Your task to perform on an android device: Add "energizer triple a" to the cart on costco.com, then select checkout. Image 0: 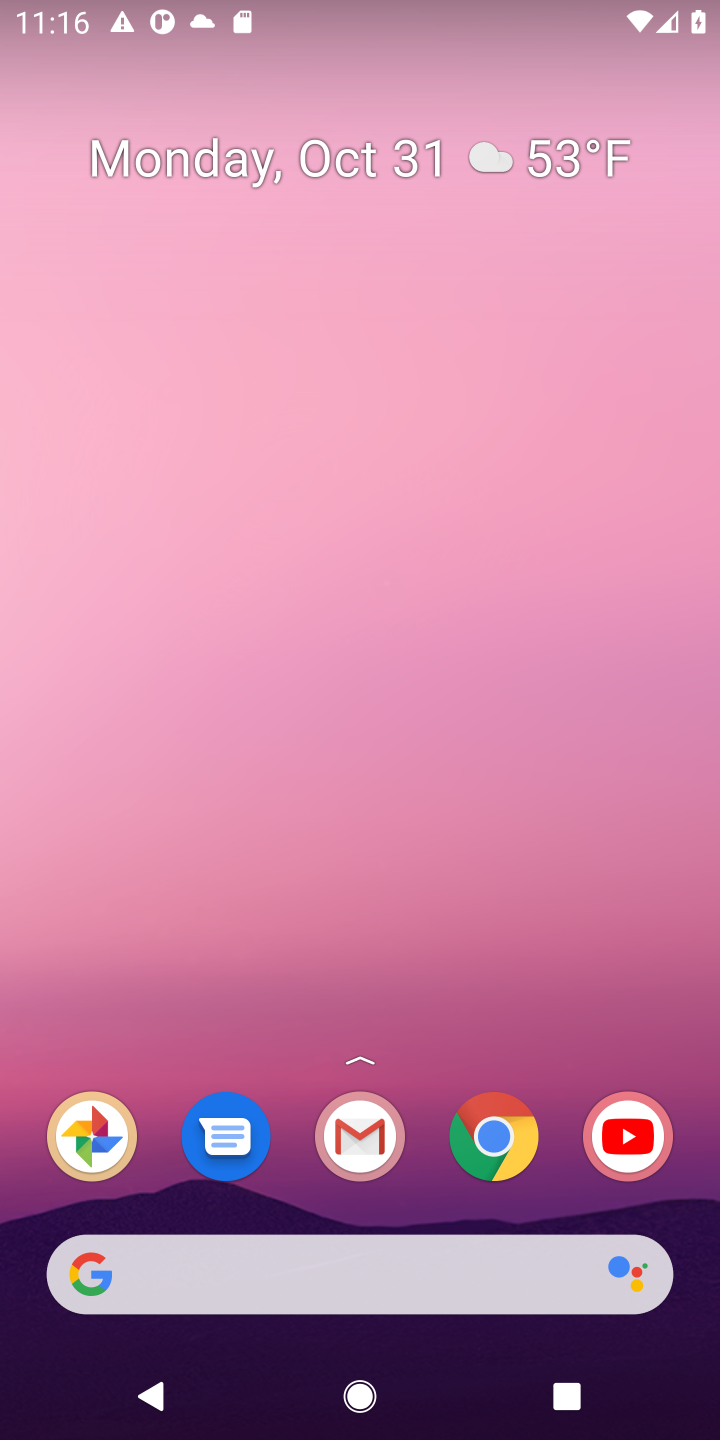
Step 0: press home button
Your task to perform on an android device: Add "energizer triple a" to the cart on costco.com, then select checkout. Image 1: 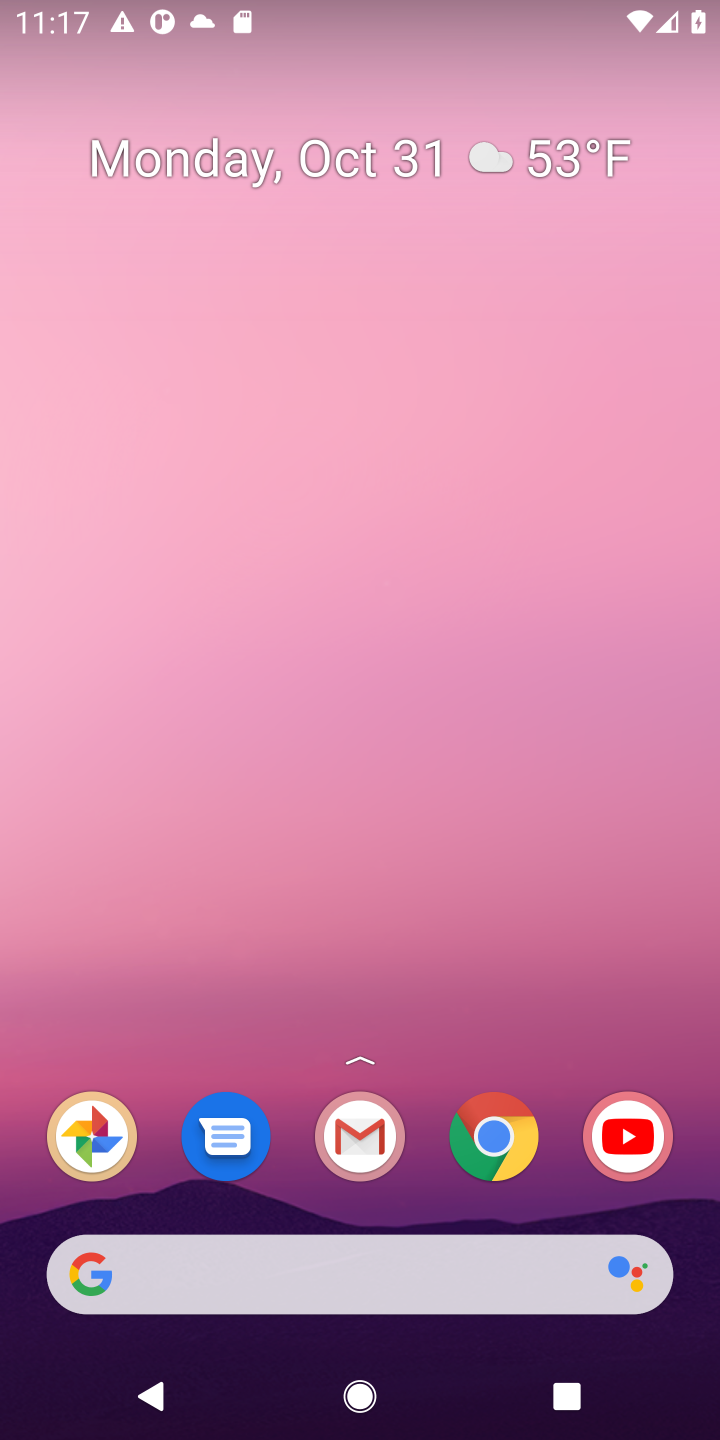
Step 1: click (133, 1281)
Your task to perform on an android device: Add "energizer triple a" to the cart on costco.com, then select checkout. Image 2: 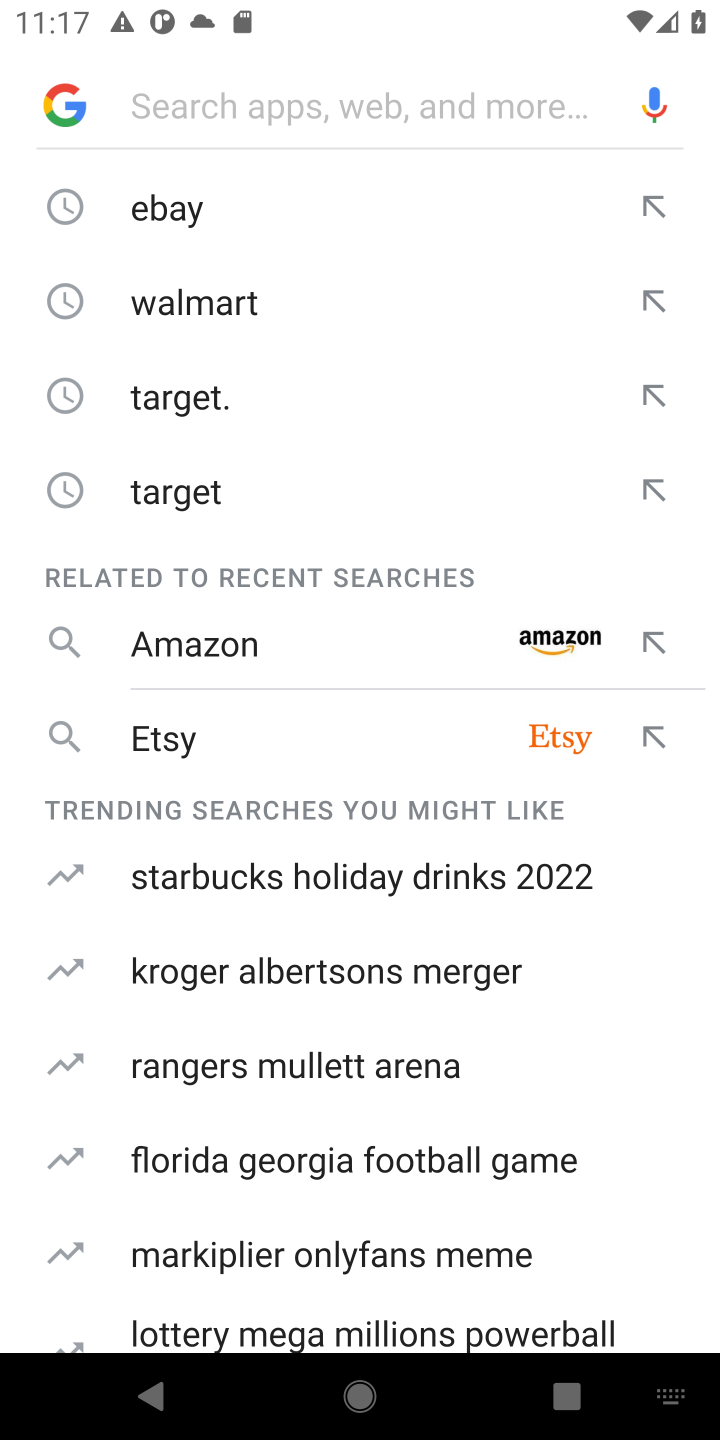
Step 2: type "costco.com"
Your task to perform on an android device: Add "energizer triple a" to the cart on costco.com, then select checkout. Image 3: 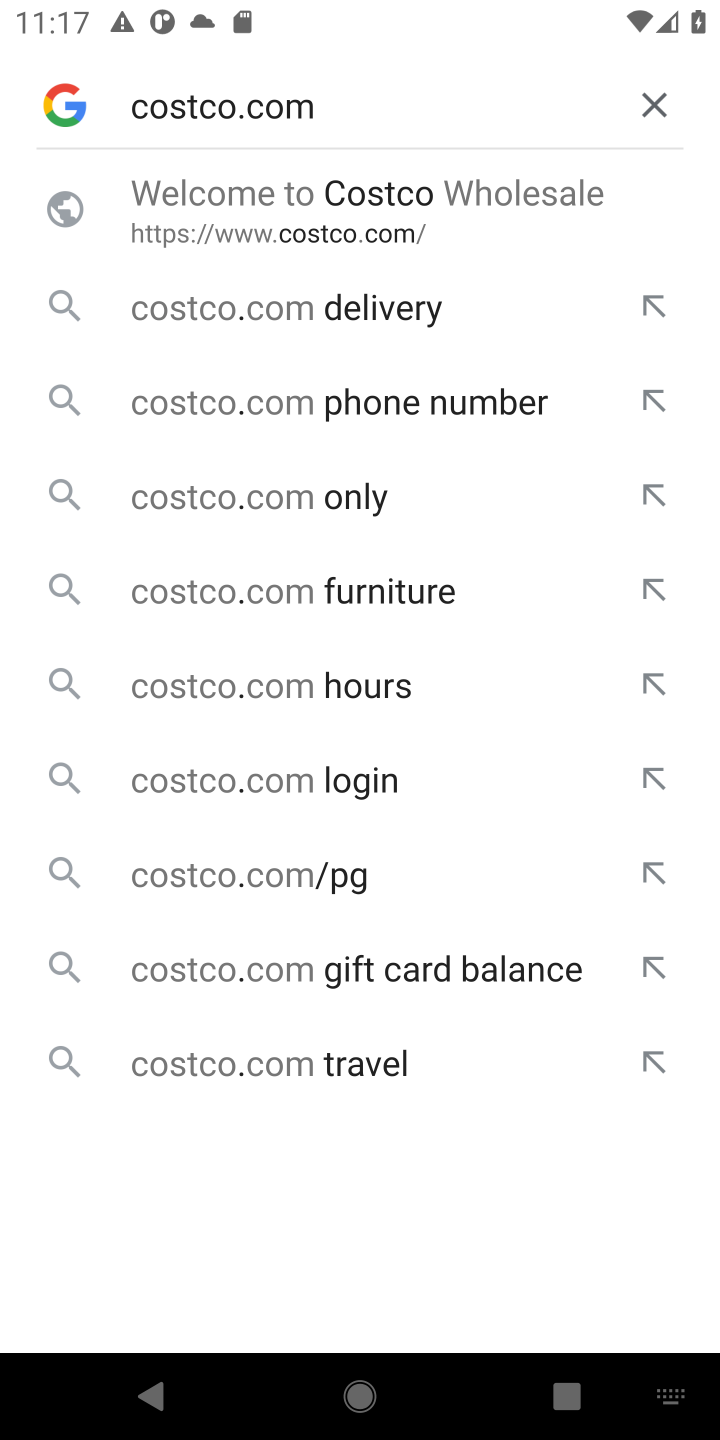
Step 3: press enter
Your task to perform on an android device: Add "energizer triple a" to the cart on costco.com, then select checkout. Image 4: 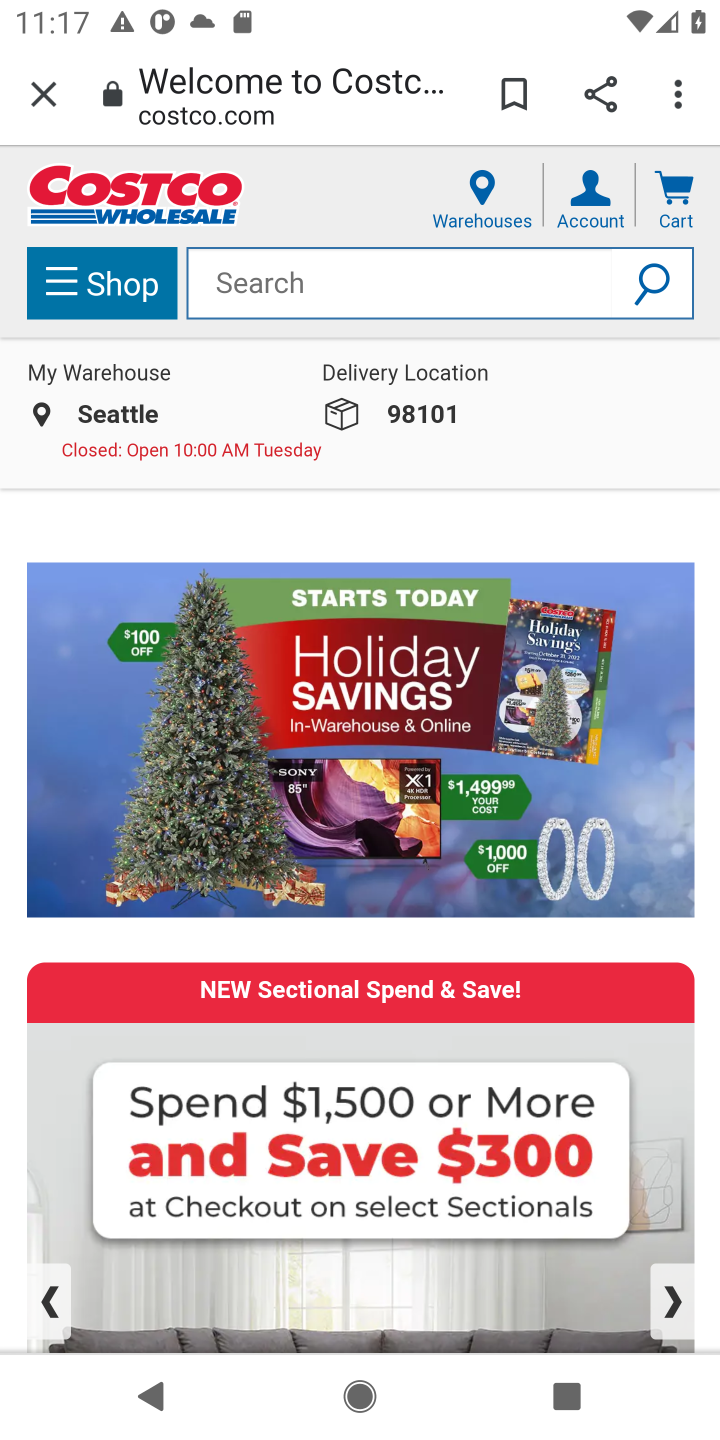
Step 4: click (268, 277)
Your task to perform on an android device: Add "energizer triple a" to the cart on costco.com, then select checkout. Image 5: 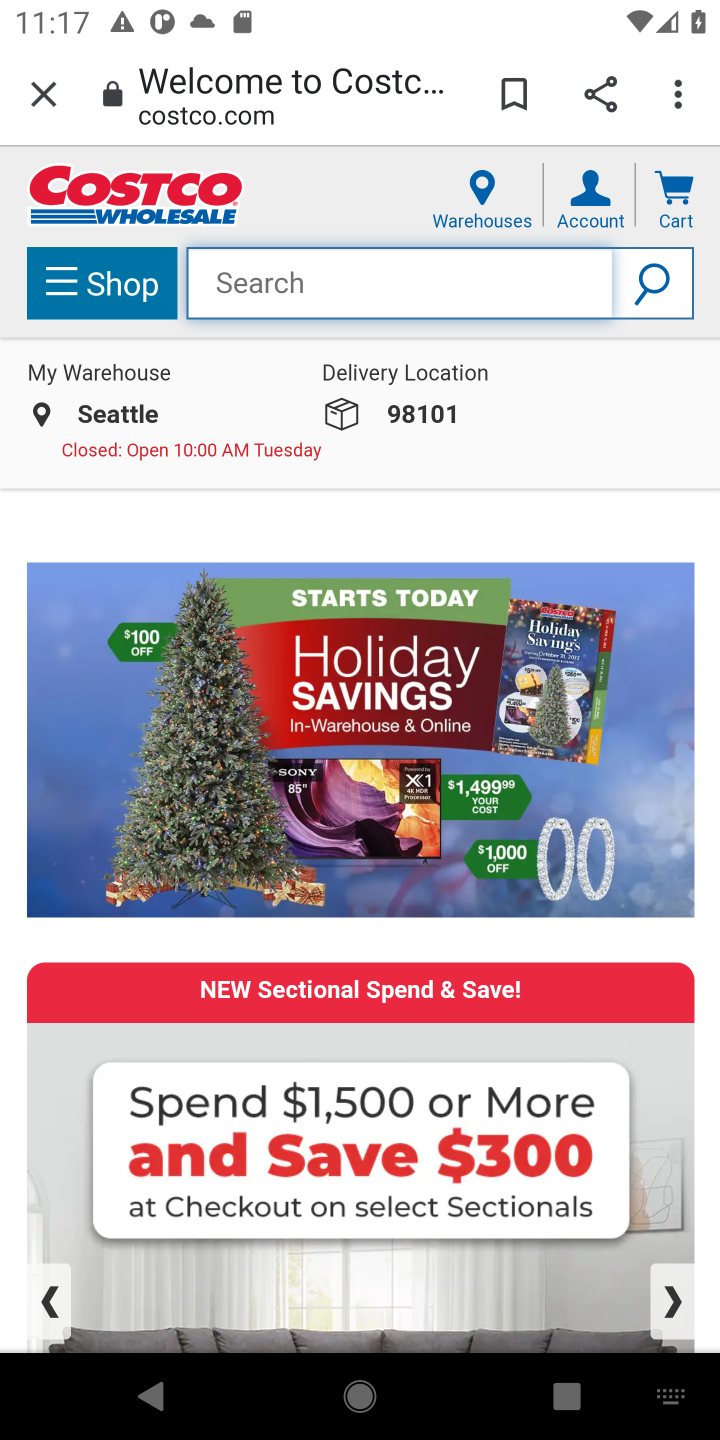
Step 5: press enter
Your task to perform on an android device: Add "energizer triple a" to the cart on costco.com, then select checkout. Image 6: 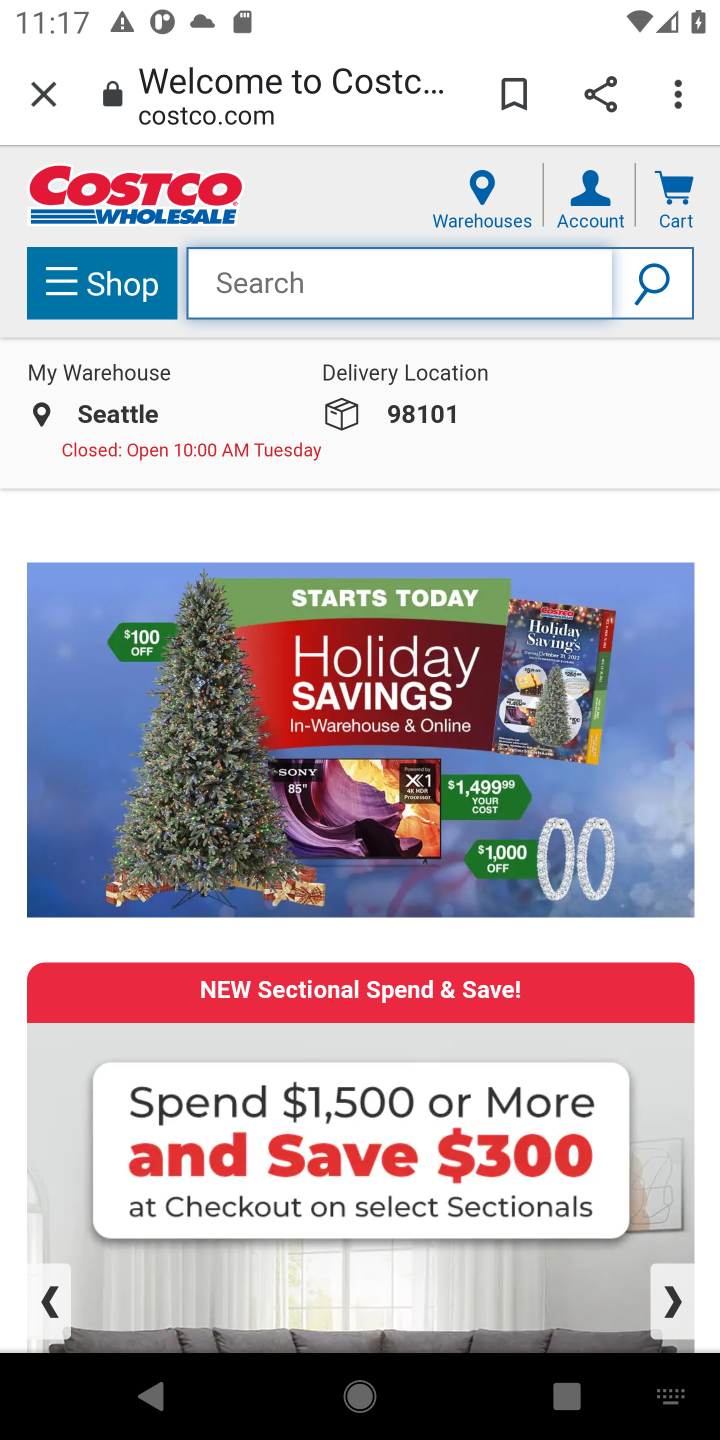
Step 6: type "energizer triple a"
Your task to perform on an android device: Add "energizer triple a" to the cart on costco.com, then select checkout. Image 7: 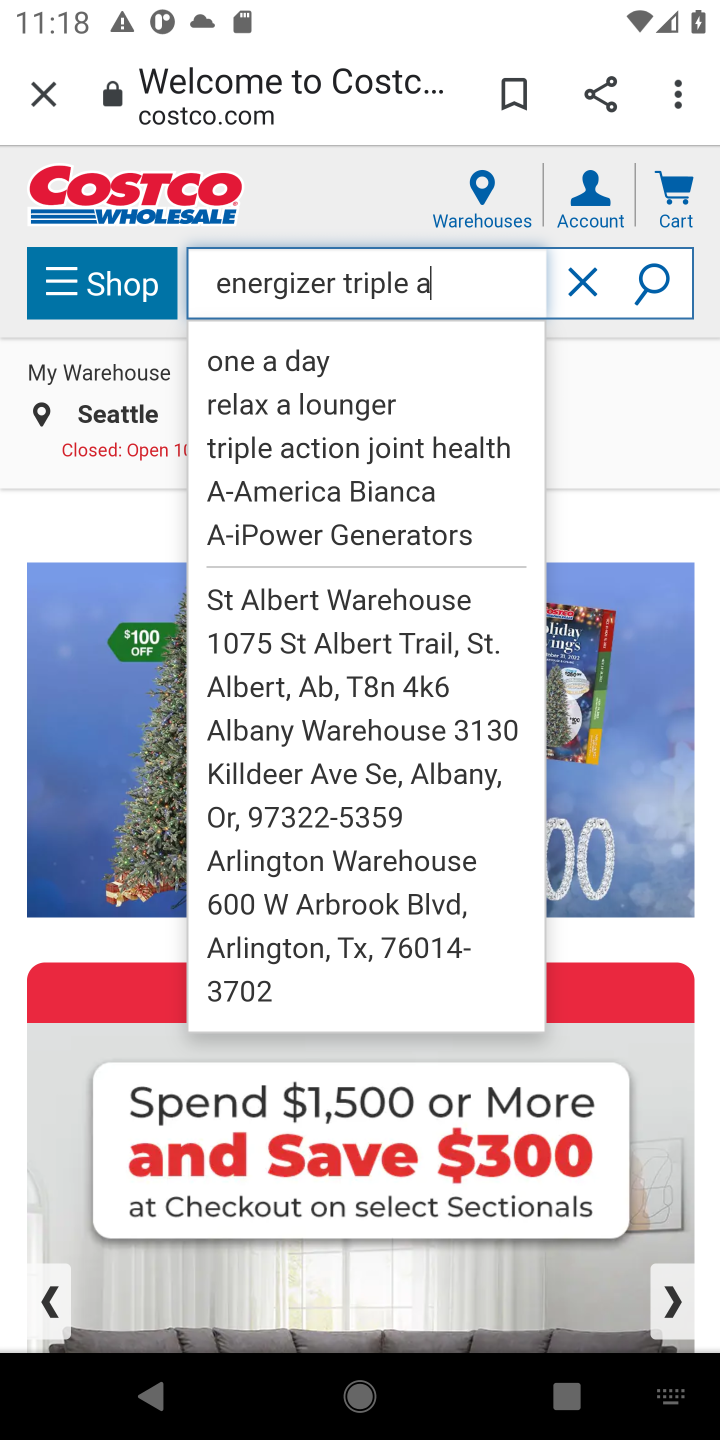
Step 7: click (658, 279)
Your task to perform on an android device: Add "energizer triple a" to the cart on costco.com, then select checkout. Image 8: 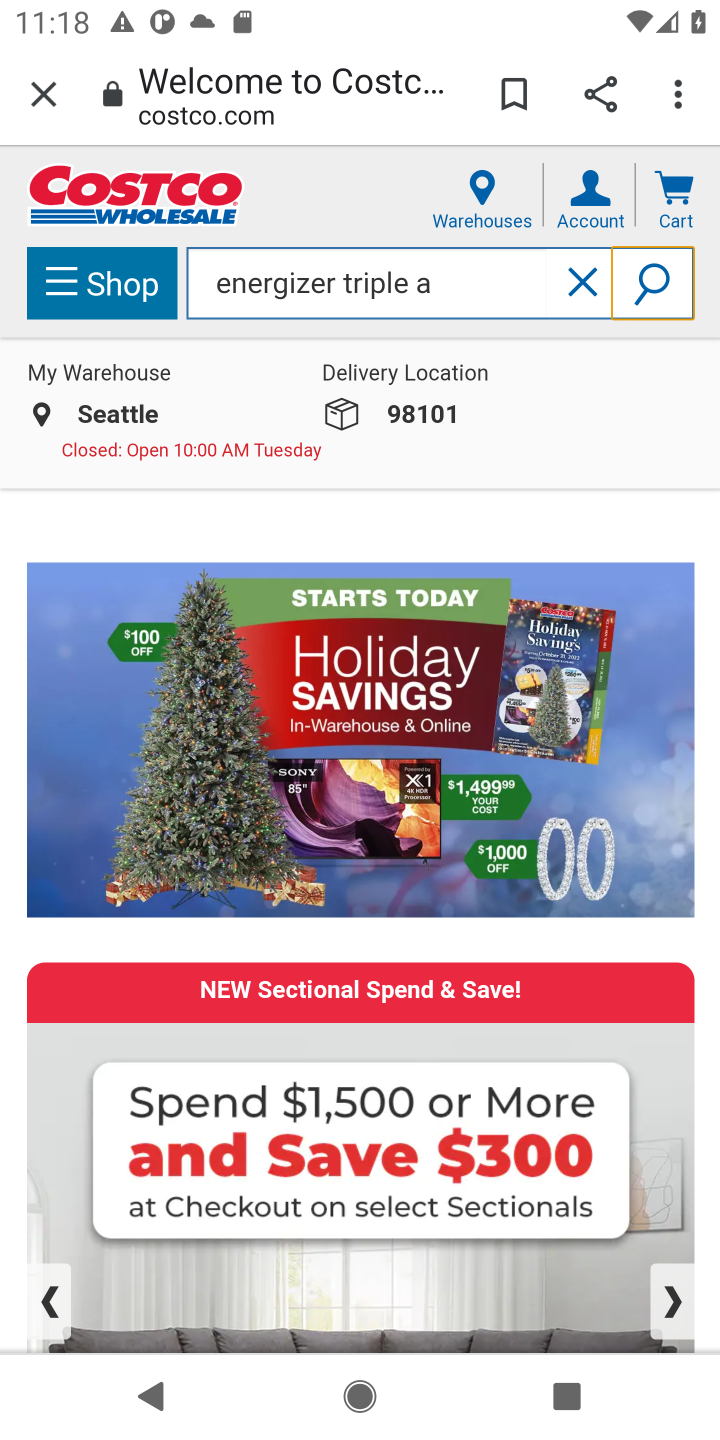
Step 8: click (656, 284)
Your task to perform on an android device: Add "energizer triple a" to the cart on costco.com, then select checkout. Image 9: 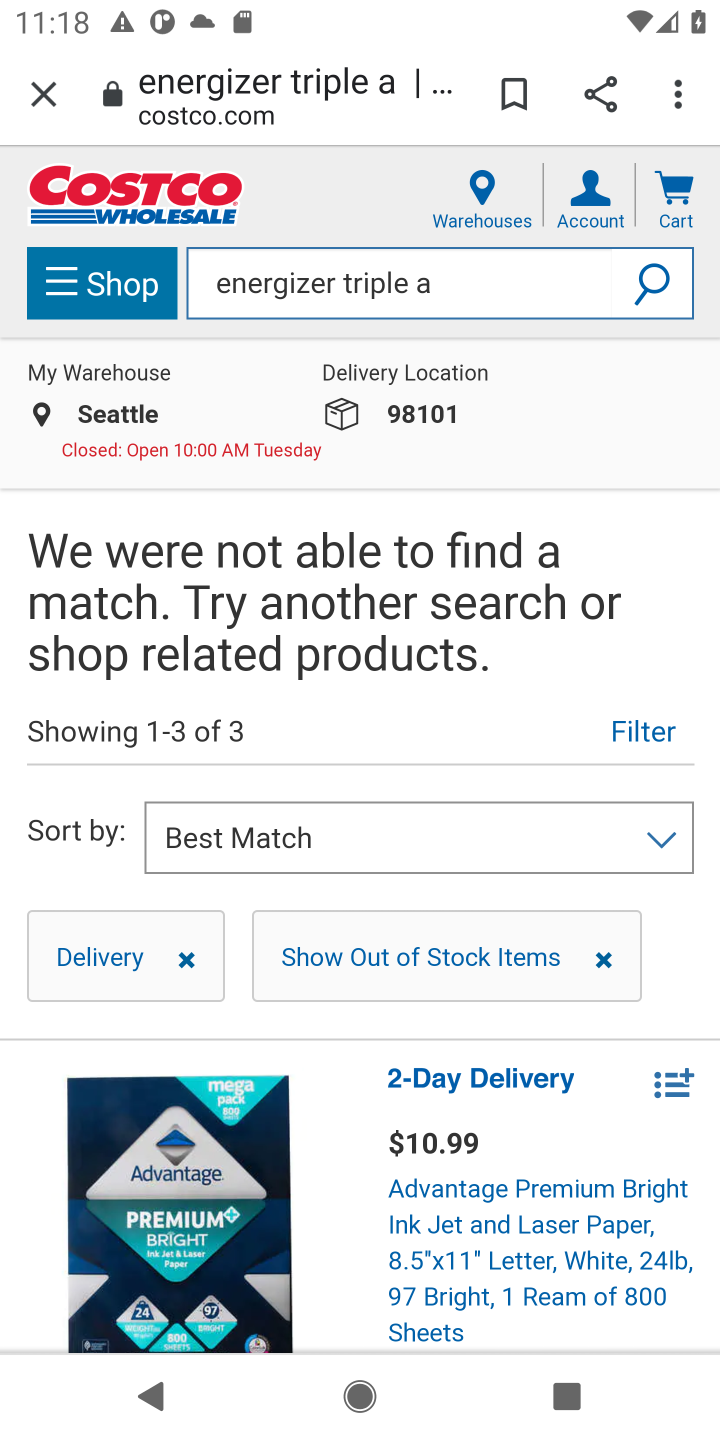
Step 9: task complete